Your task to perform on an android device: Open the stopwatch Image 0: 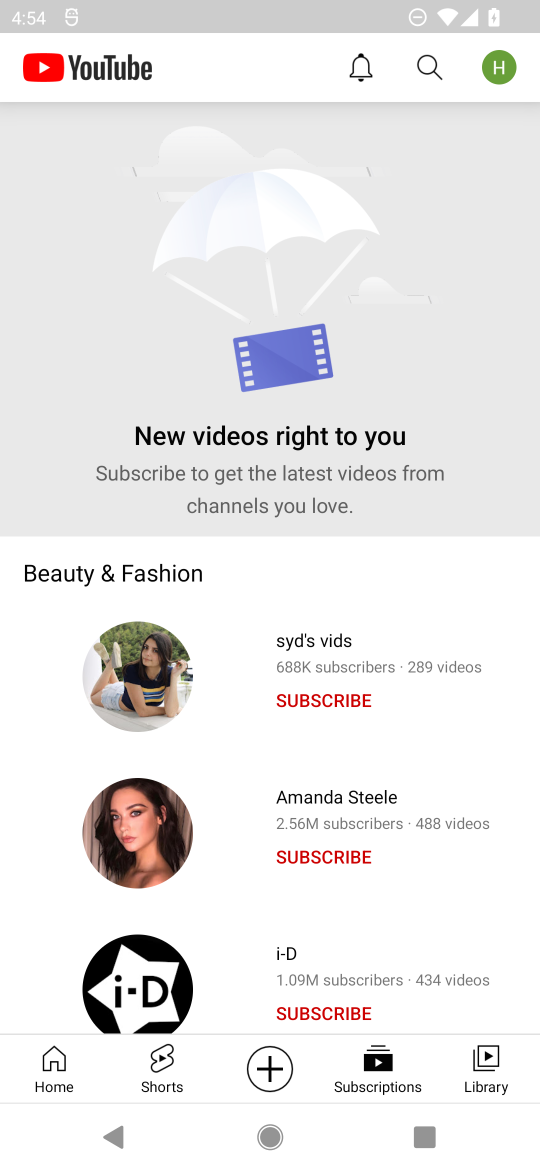
Step 0: press home button
Your task to perform on an android device: Open the stopwatch Image 1: 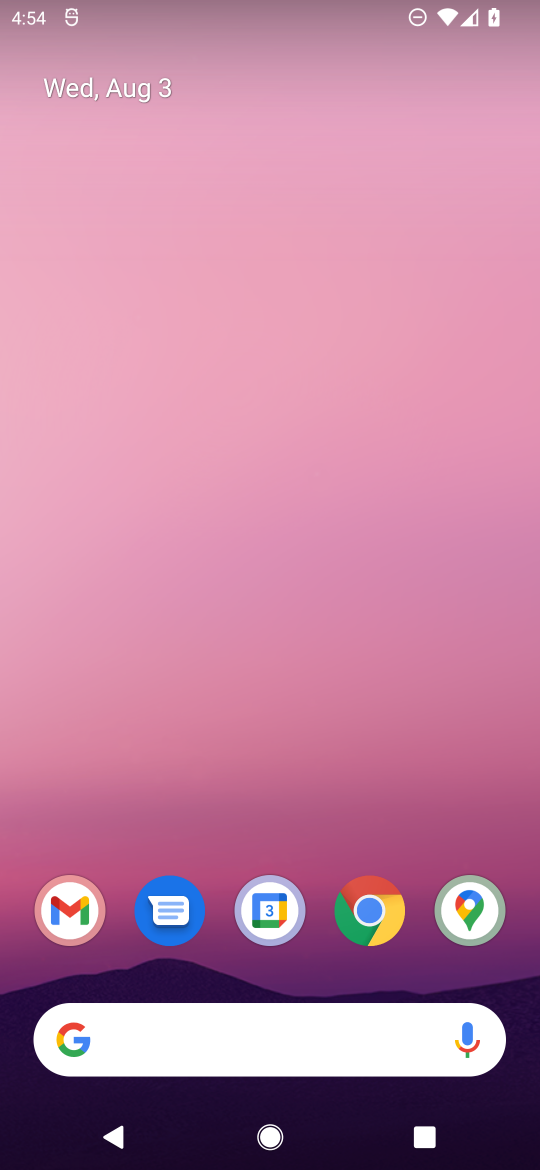
Step 1: drag from (74, 1129) to (295, 6)
Your task to perform on an android device: Open the stopwatch Image 2: 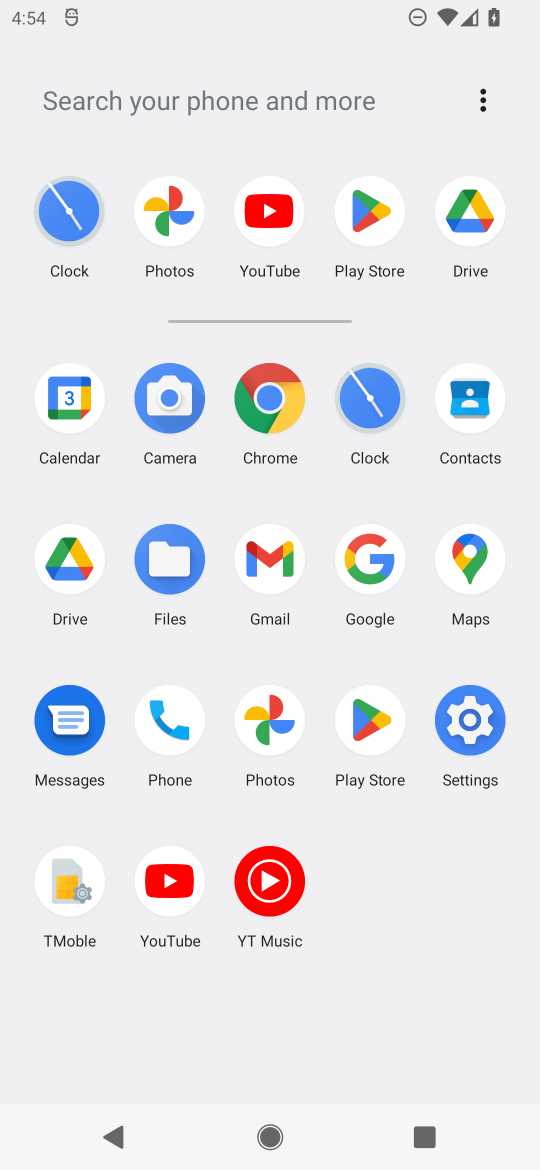
Step 2: click (369, 387)
Your task to perform on an android device: Open the stopwatch Image 3: 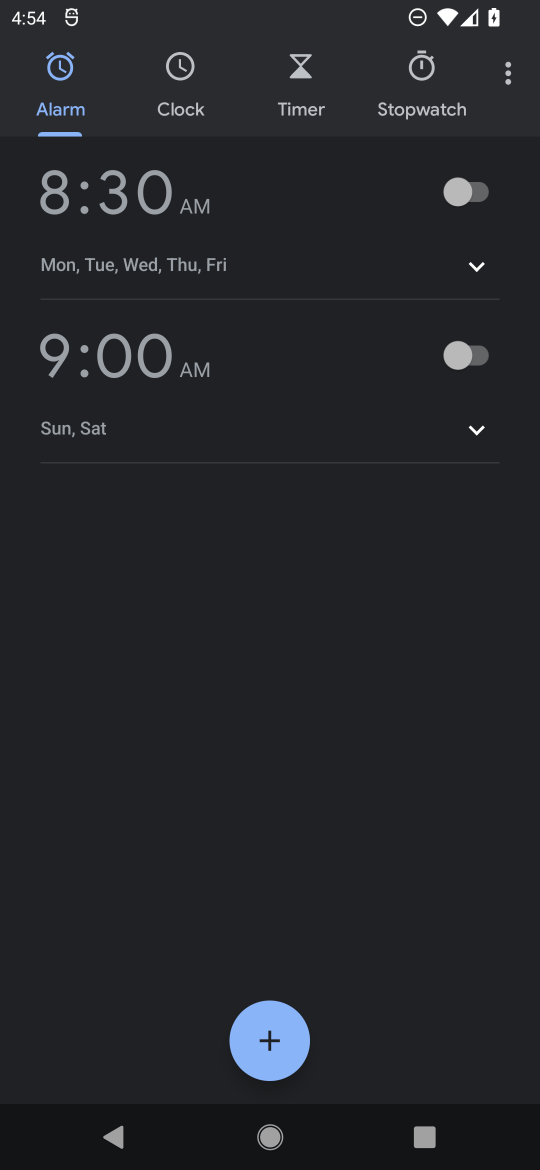
Step 3: click (409, 93)
Your task to perform on an android device: Open the stopwatch Image 4: 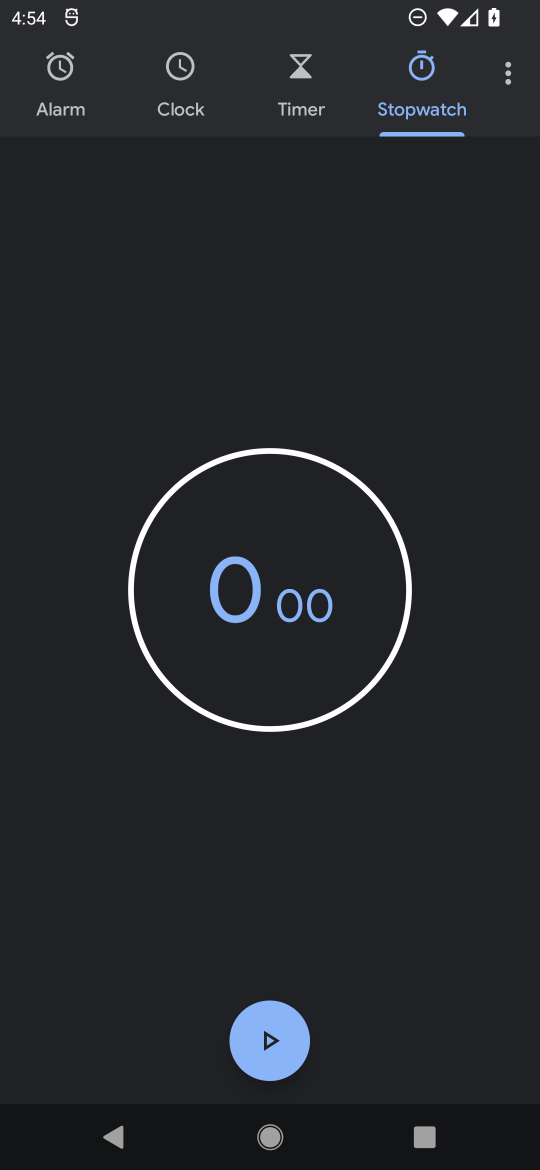
Step 4: click (270, 1021)
Your task to perform on an android device: Open the stopwatch Image 5: 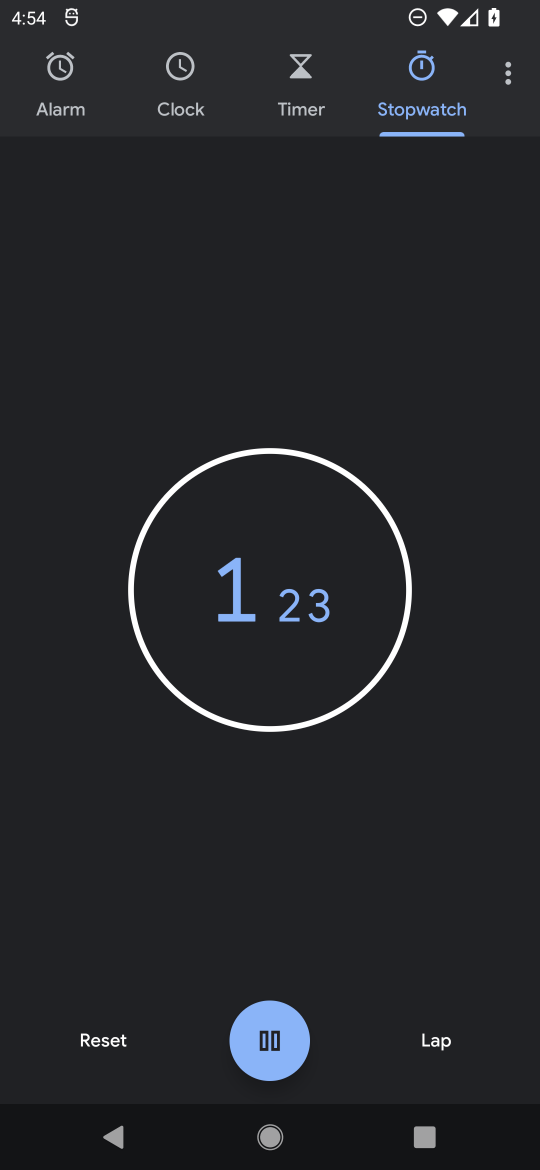
Step 5: click (275, 1047)
Your task to perform on an android device: Open the stopwatch Image 6: 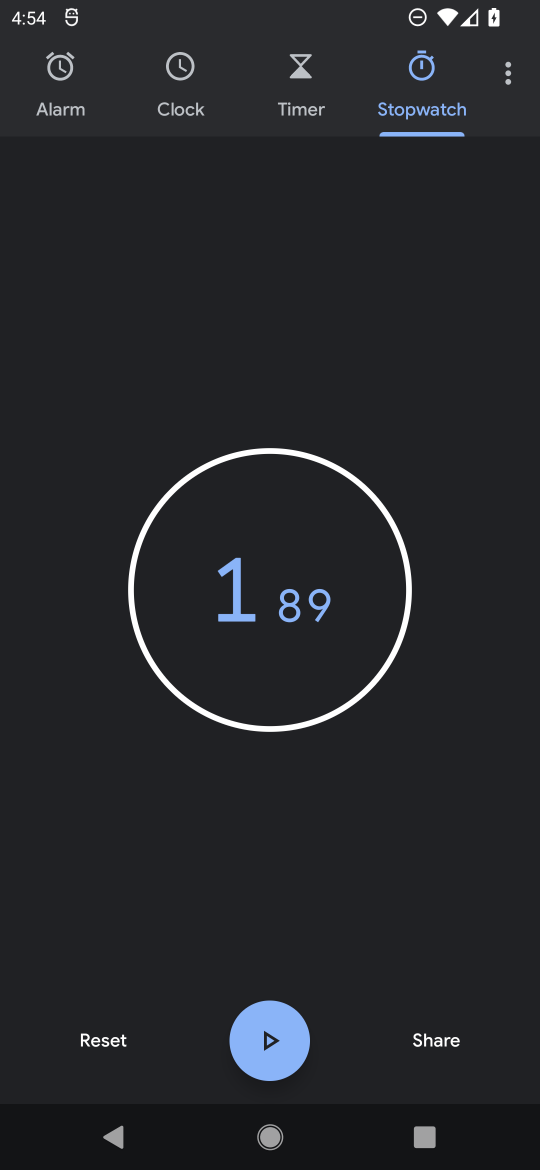
Step 6: task complete